Your task to perform on an android device: turn pop-ups on in chrome Image 0: 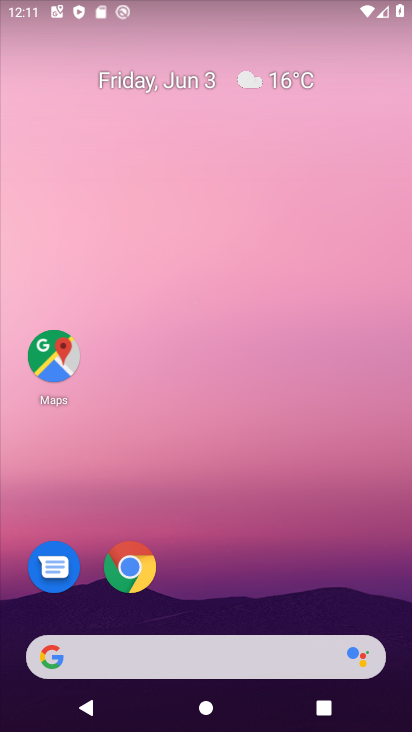
Step 0: click (149, 579)
Your task to perform on an android device: turn pop-ups on in chrome Image 1: 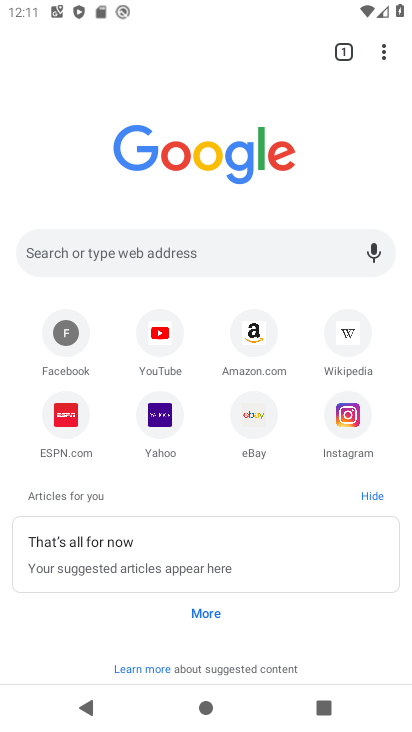
Step 1: click (385, 60)
Your task to perform on an android device: turn pop-ups on in chrome Image 2: 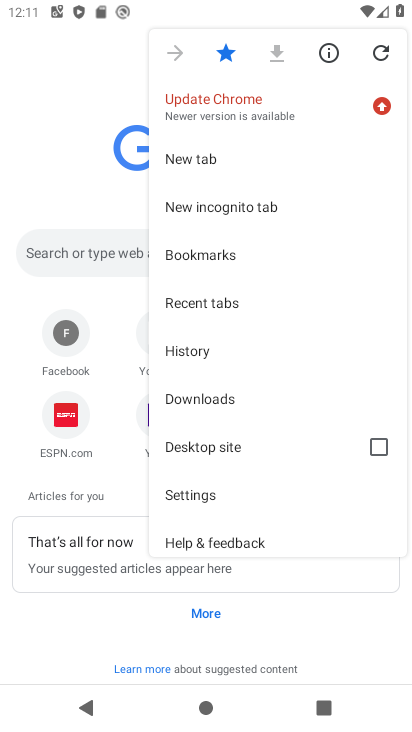
Step 2: click (230, 490)
Your task to perform on an android device: turn pop-ups on in chrome Image 3: 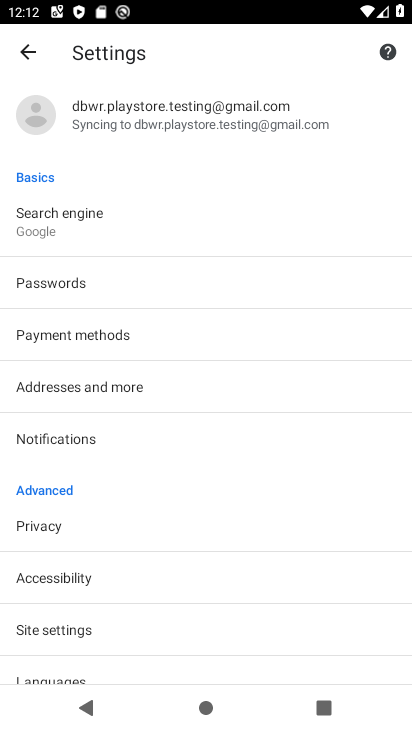
Step 3: click (175, 631)
Your task to perform on an android device: turn pop-ups on in chrome Image 4: 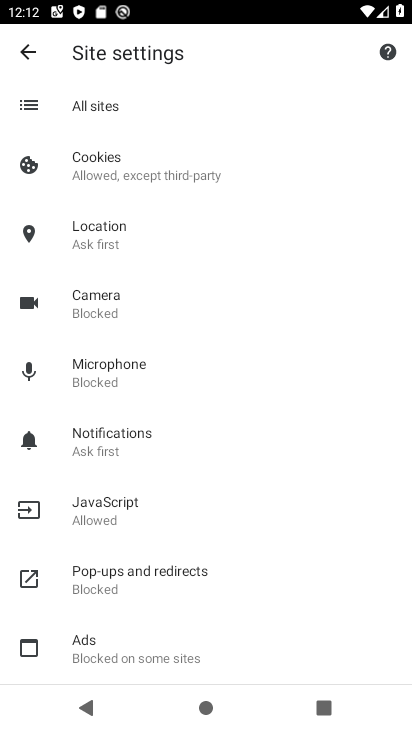
Step 4: click (132, 587)
Your task to perform on an android device: turn pop-ups on in chrome Image 5: 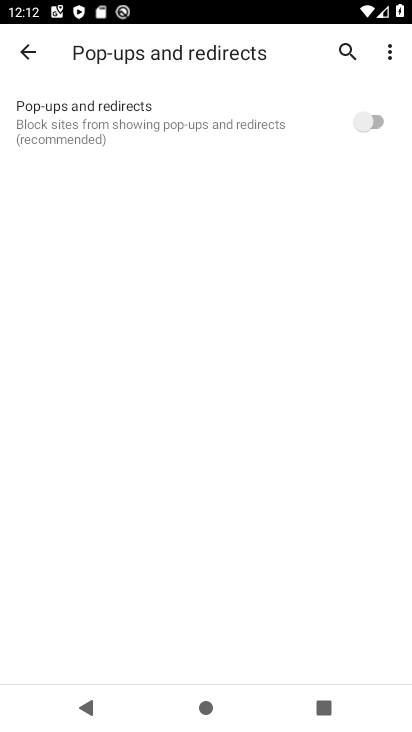
Step 5: click (354, 118)
Your task to perform on an android device: turn pop-ups on in chrome Image 6: 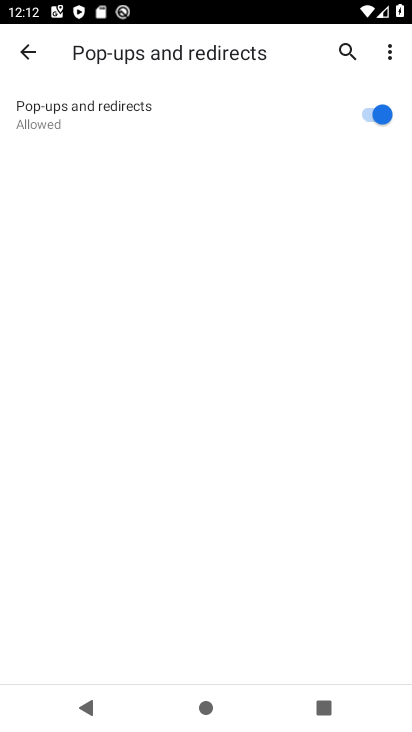
Step 6: task complete